Your task to perform on an android device: Set an alarm for 1pm Image 0: 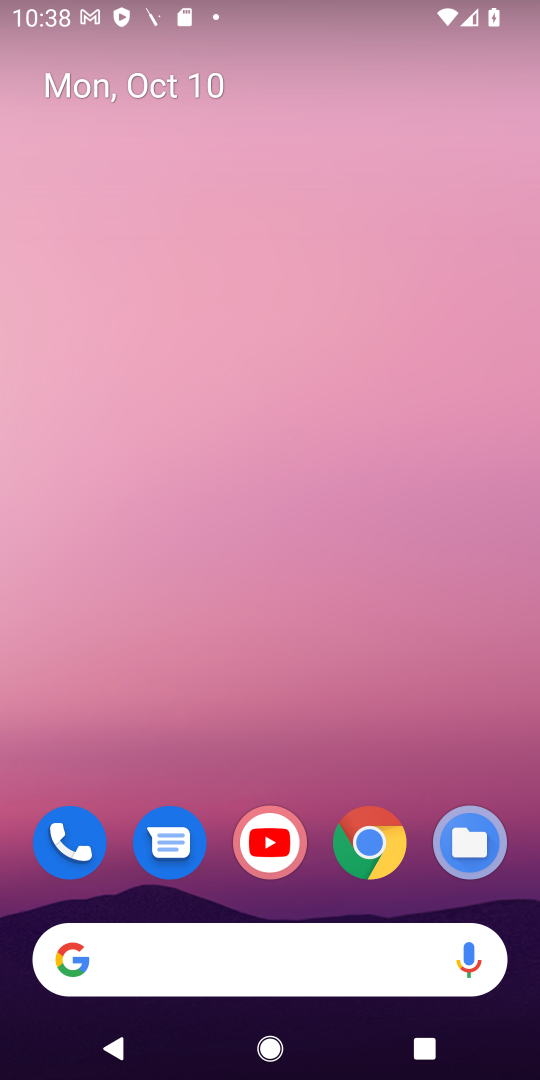
Step 0: drag from (362, 793) to (369, 53)
Your task to perform on an android device: Set an alarm for 1pm Image 1: 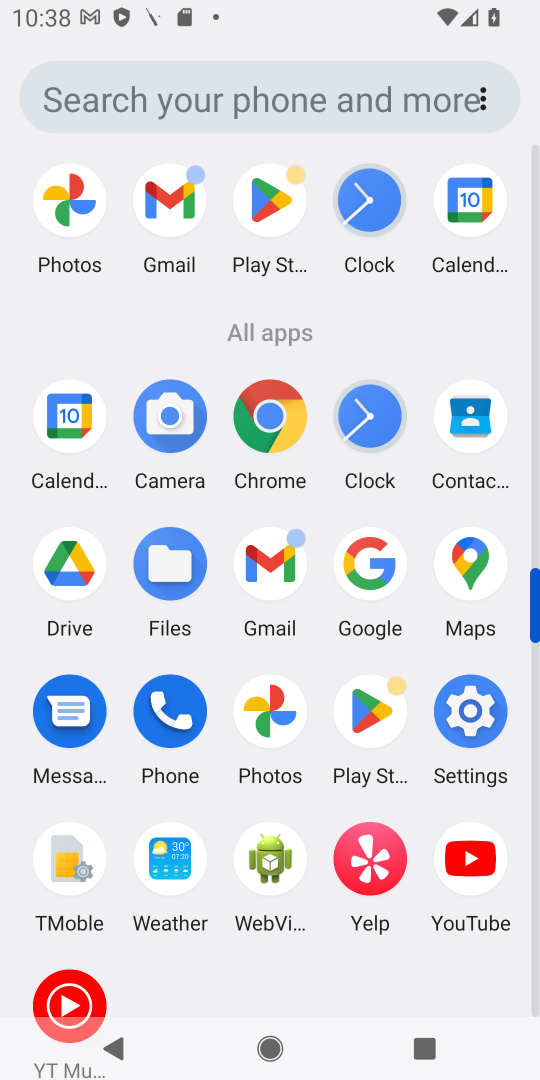
Step 1: click (370, 214)
Your task to perform on an android device: Set an alarm for 1pm Image 2: 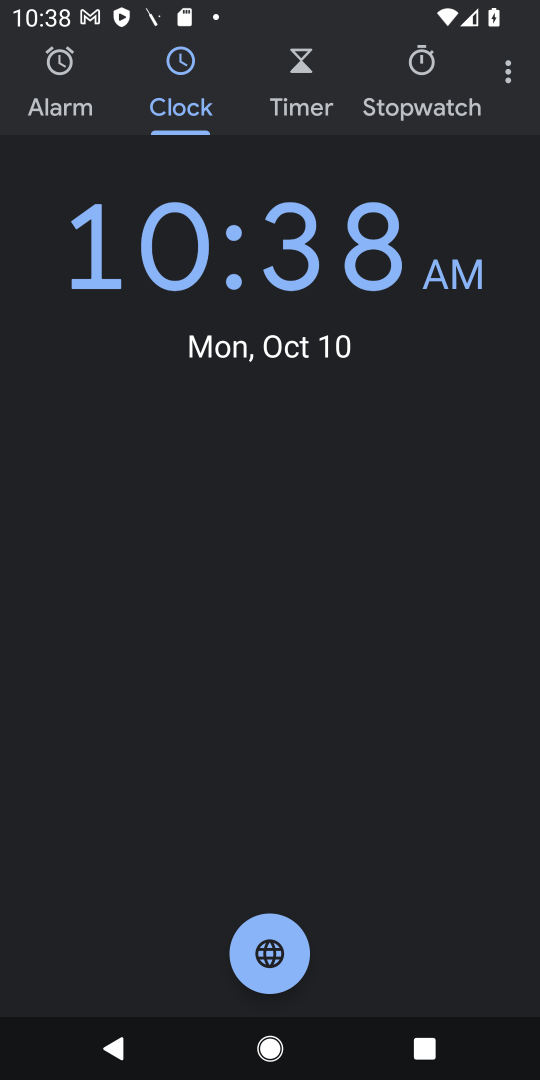
Step 2: click (66, 73)
Your task to perform on an android device: Set an alarm for 1pm Image 3: 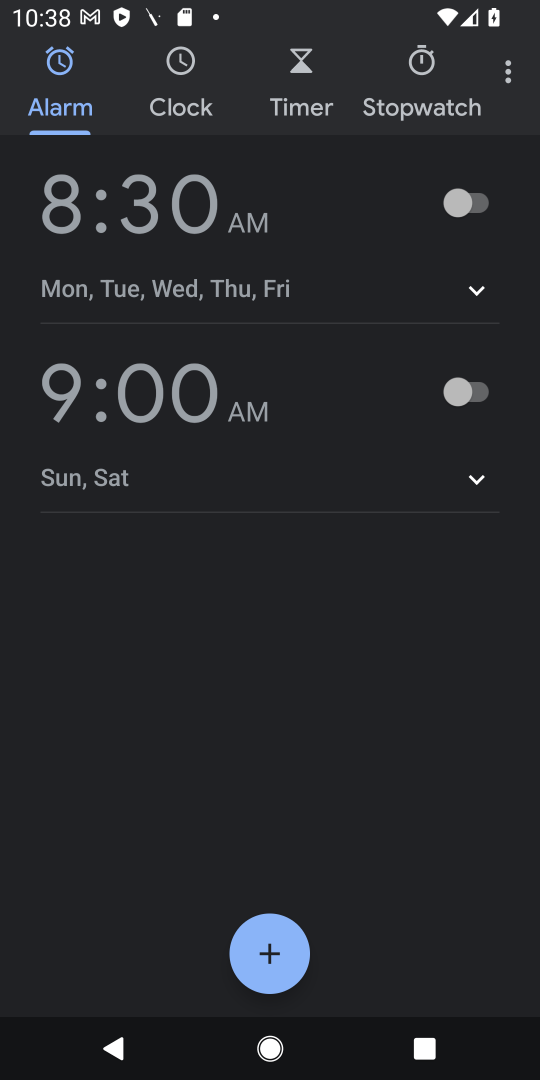
Step 3: click (278, 937)
Your task to perform on an android device: Set an alarm for 1pm Image 4: 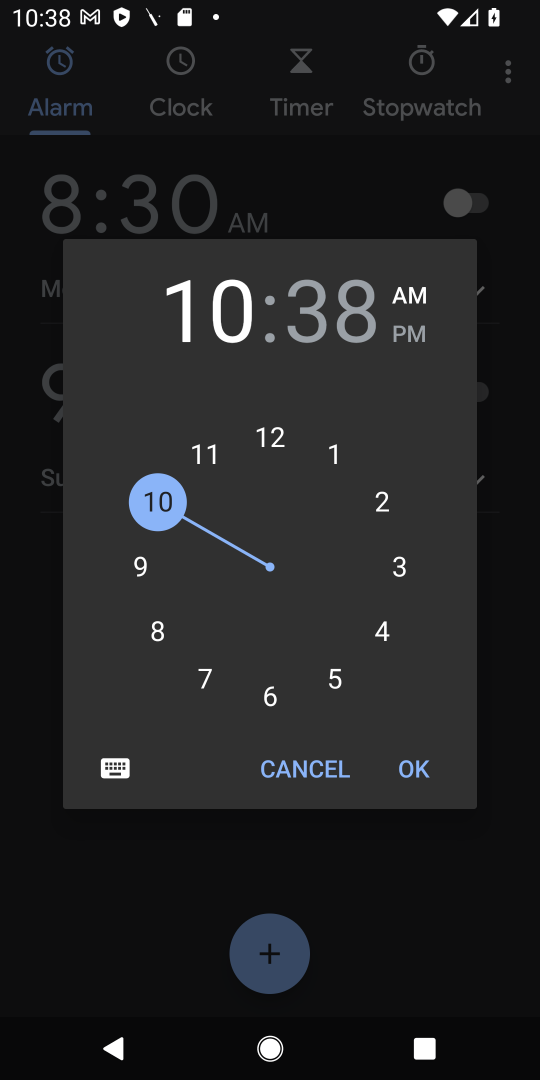
Step 4: click (336, 455)
Your task to perform on an android device: Set an alarm for 1pm Image 5: 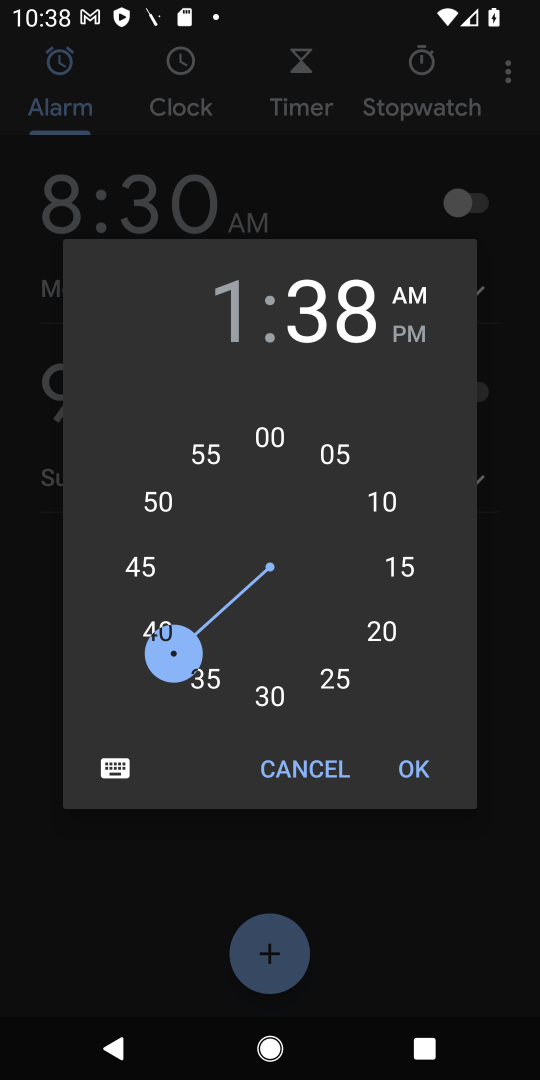
Step 5: click (281, 432)
Your task to perform on an android device: Set an alarm for 1pm Image 6: 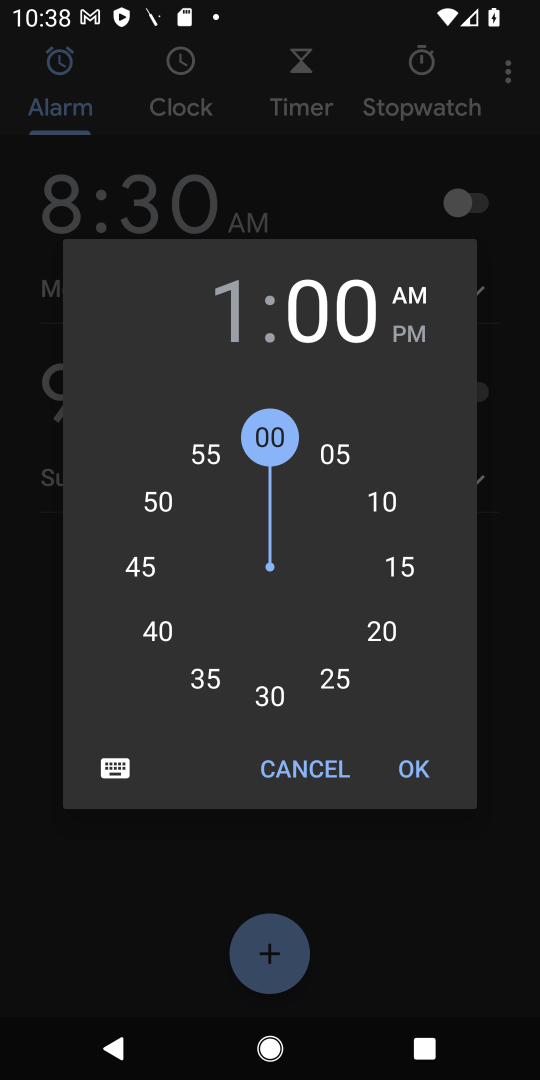
Step 6: click (412, 335)
Your task to perform on an android device: Set an alarm for 1pm Image 7: 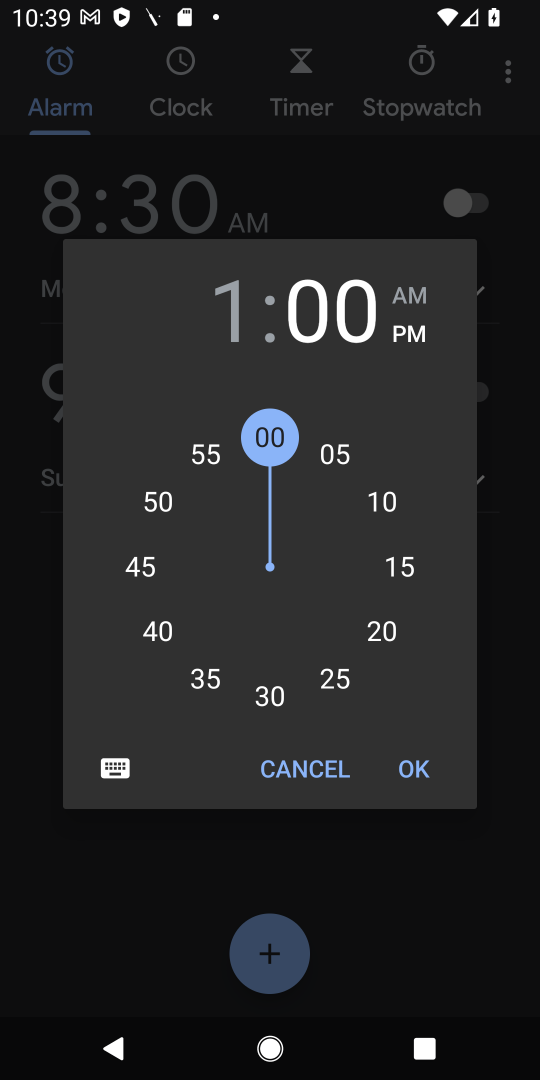
Step 7: click (403, 766)
Your task to perform on an android device: Set an alarm for 1pm Image 8: 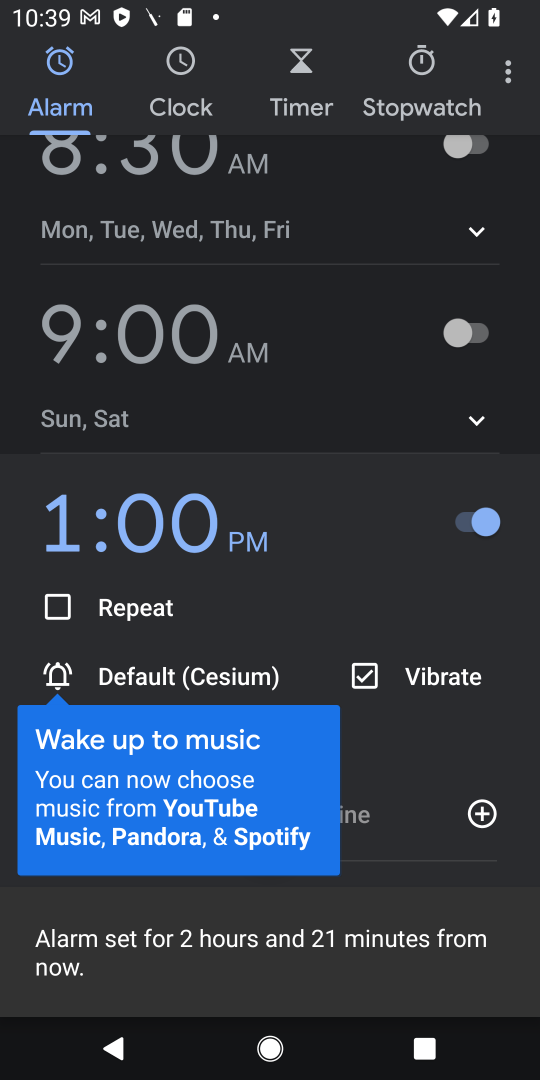
Step 8: task complete